Your task to perform on an android device: toggle wifi Image 0: 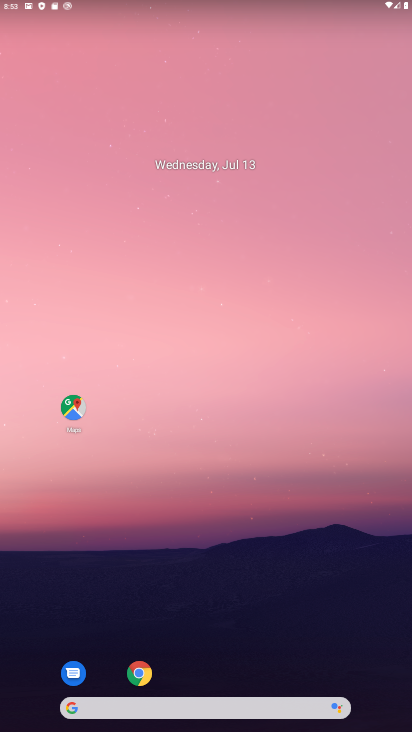
Step 0: drag from (202, 668) to (285, 50)
Your task to perform on an android device: toggle wifi Image 1: 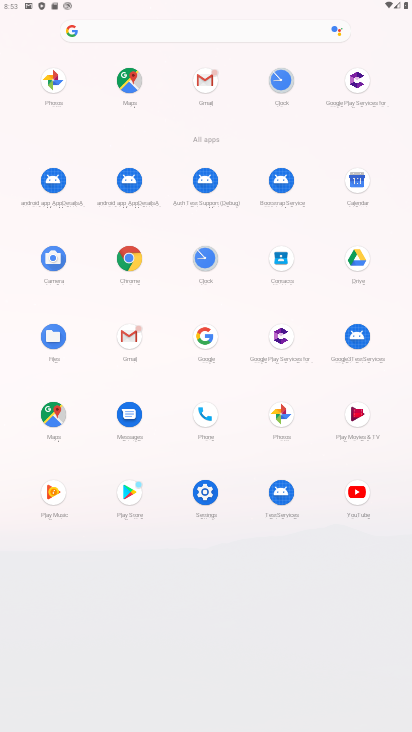
Step 1: click (203, 501)
Your task to perform on an android device: toggle wifi Image 2: 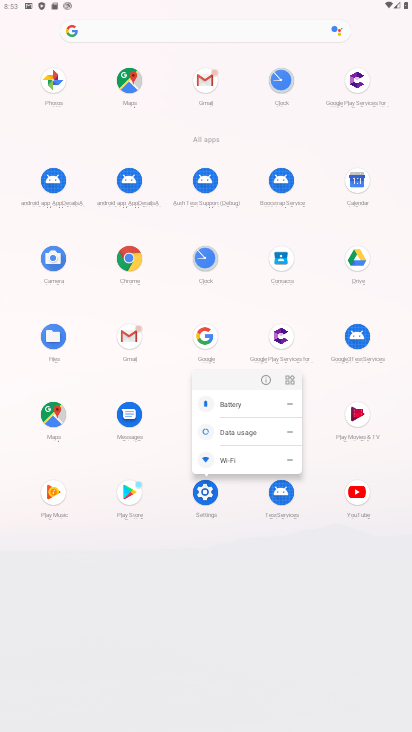
Step 2: click (262, 381)
Your task to perform on an android device: toggle wifi Image 3: 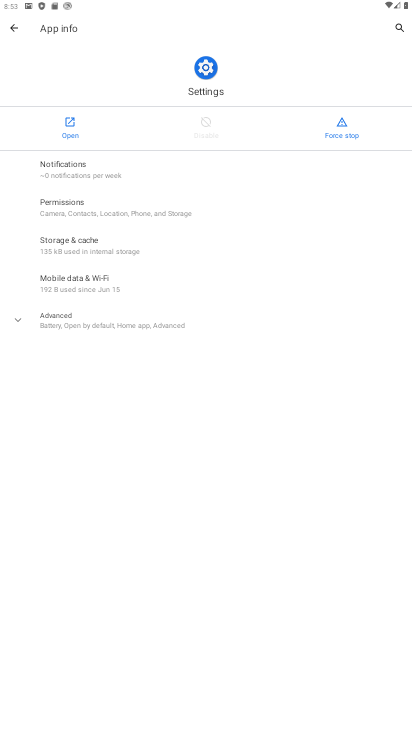
Step 3: click (68, 116)
Your task to perform on an android device: toggle wifi Image 4: 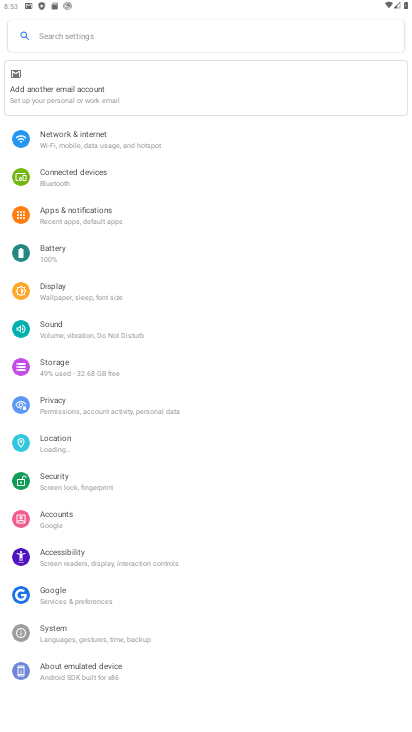
Step 4: click (56, 135)
Your task to perform on an android device: toggle wifi Image 5: 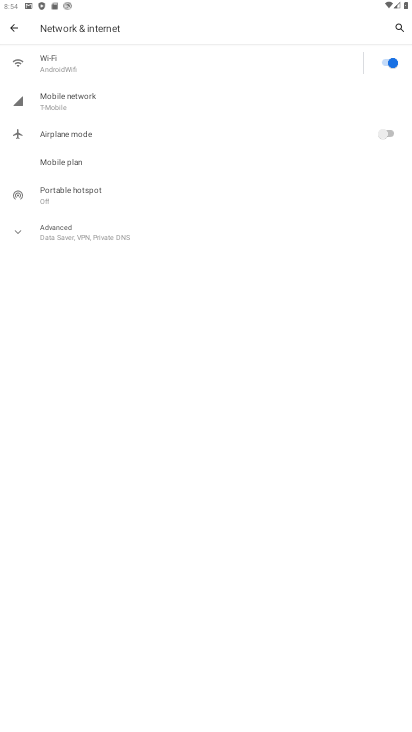
Step 5: click (67, 62)
Your task to perform on an android device: toggle wifi Image 6: 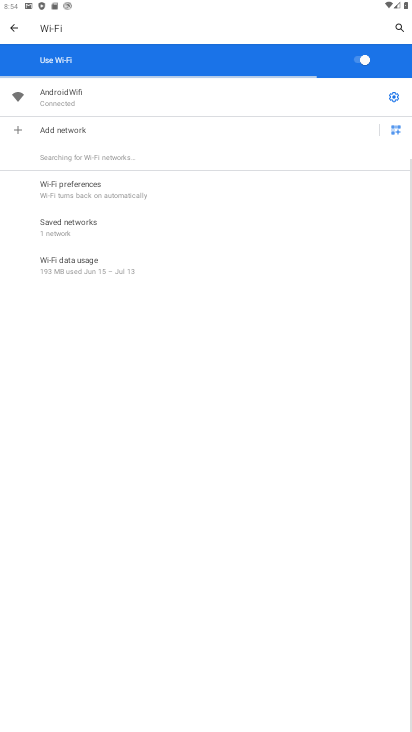
Step 6: click (358, 56)
Your task to perform on an android device: toggle wifi Image 7: 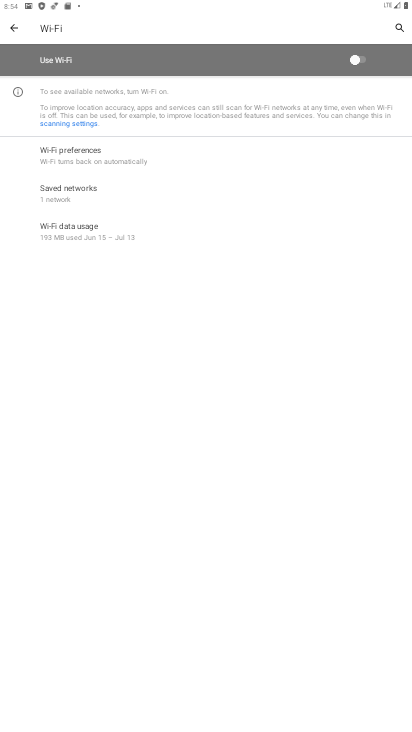
Step 7: task complete